Your task to perform on an android device: Search for vegetarian restaurants on Maps Image 0: 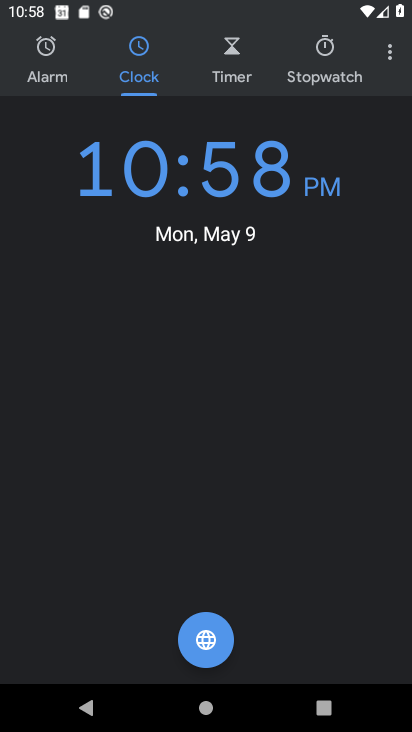
Step 0: press home button
Your task to perform on an android device: Search for vegetarian restaurants on Maps Image 1: 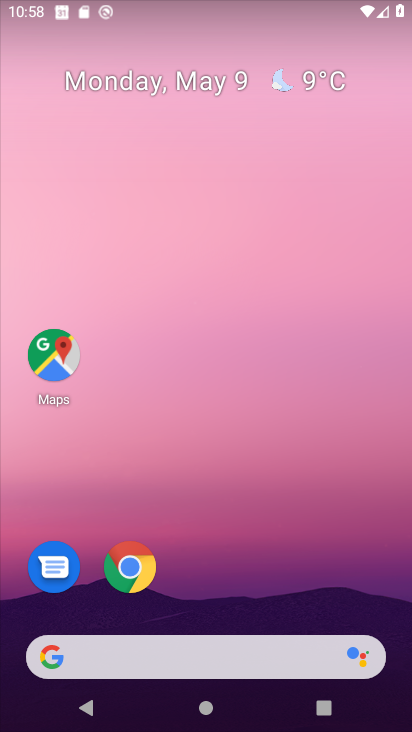
Step 1: click (54, 356)
Your task to perform on an android device: Search for vegetarian restaurants on Maps Image 2: 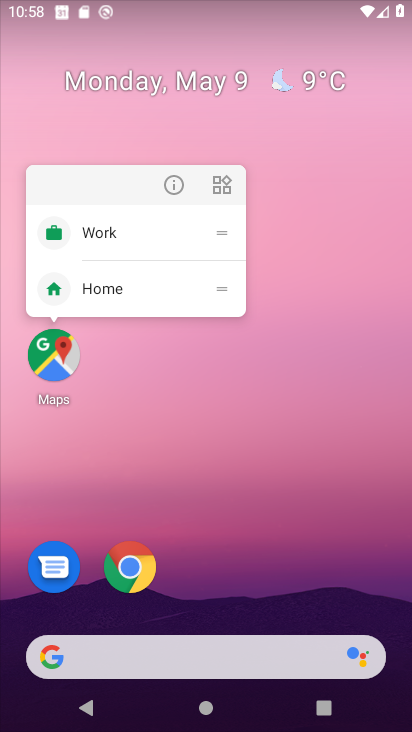
Step 2: click (52, 351)
Your task to perform on an android device: Search for vegetarian restaurants on Maps Image 3: 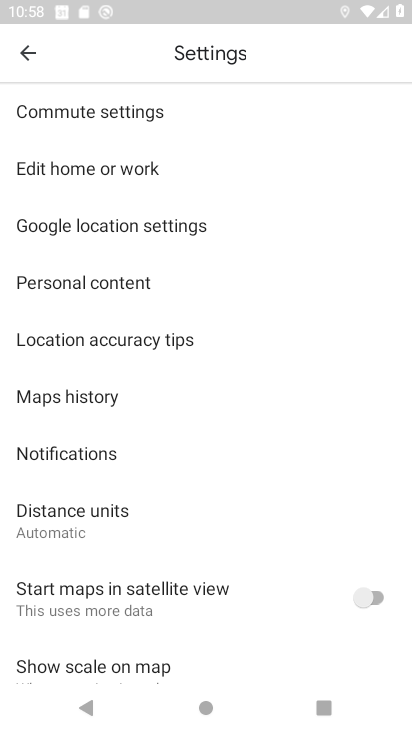
Step 3: click (78, 708)
Your task to perform on an android device: Search for vegetarian restaurants on Maps Image 4: 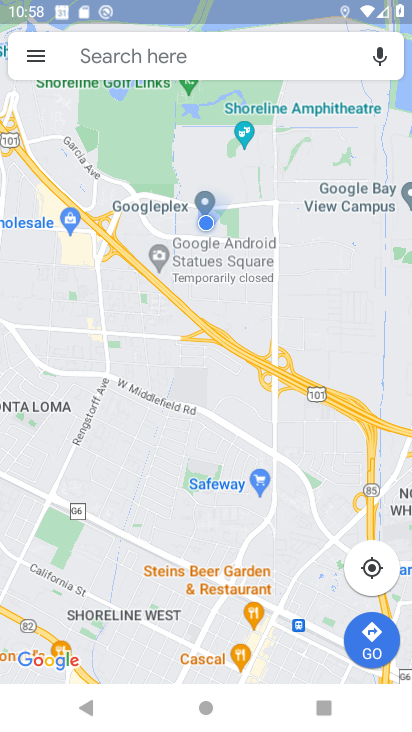
Step 4: click (122, 54)
Your task to perform on an android device: Search for vegetarian restaurants on Maps Image 5: 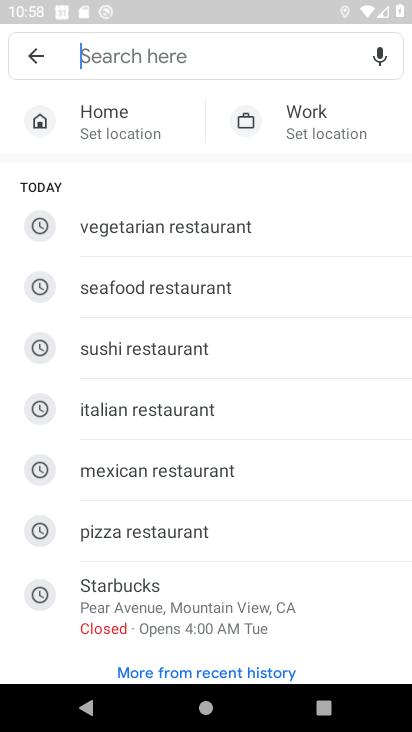
Step 5: click (164, 234)
Your task to perform on an android device: Search for vegetarian restaurants on Maps Image 6: 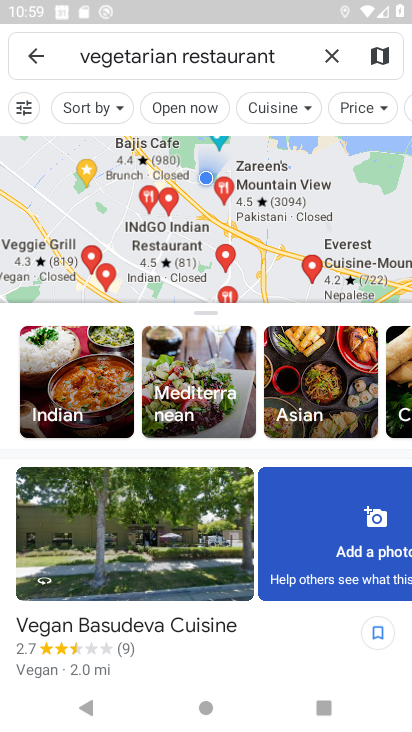
Step 6: task complete